Your task to perform on an android device: turn smart compose on in the gmail app Image 0: 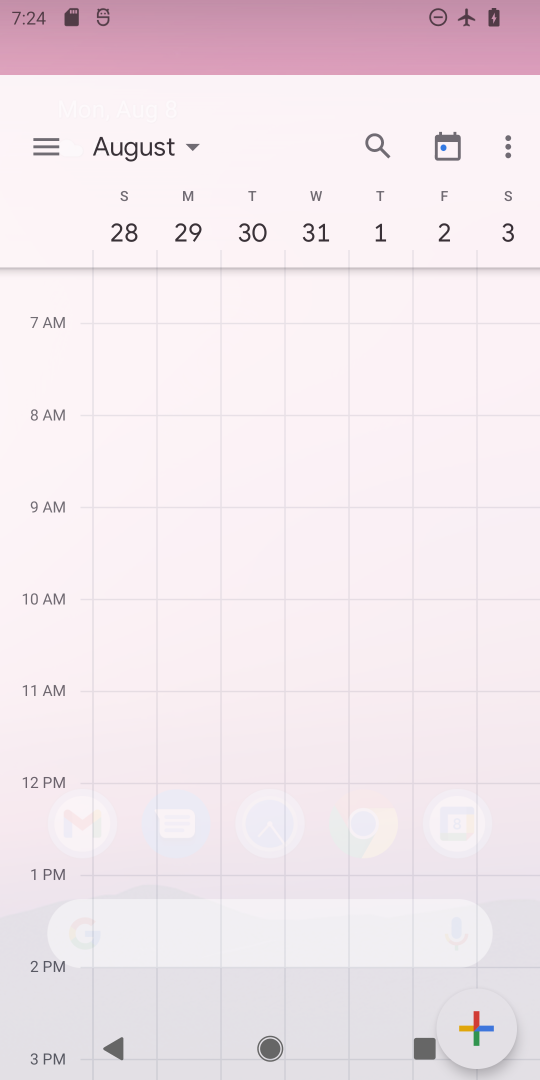
Step 0: drag from (242, 511) to (187, 123)
Your task to perform on an android device: turn smart compose on in the gmail app Image 1: 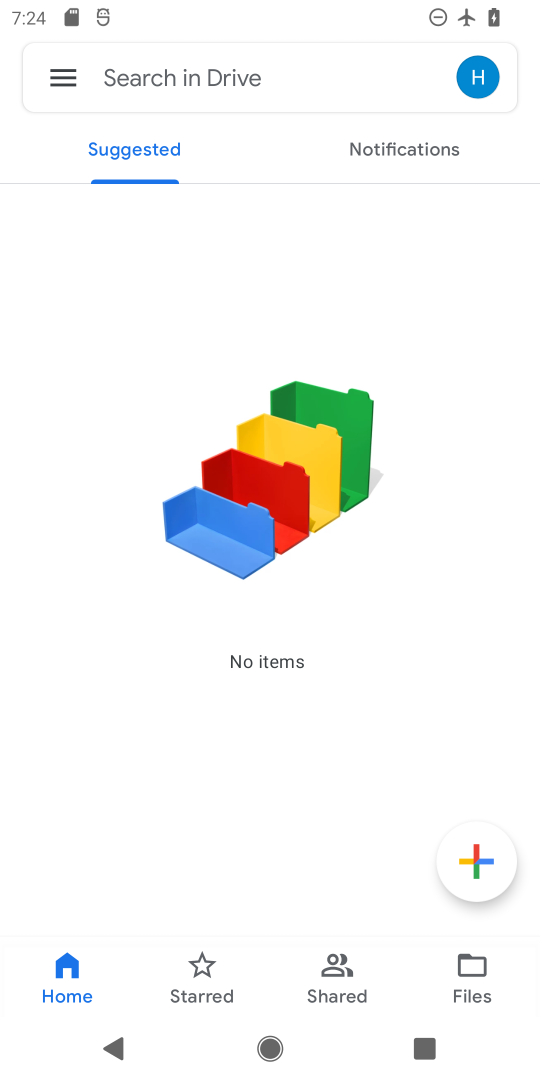
Step 1: press back button
Your task to perform on an android device: turn smart compose on in the gmail app Image 2: 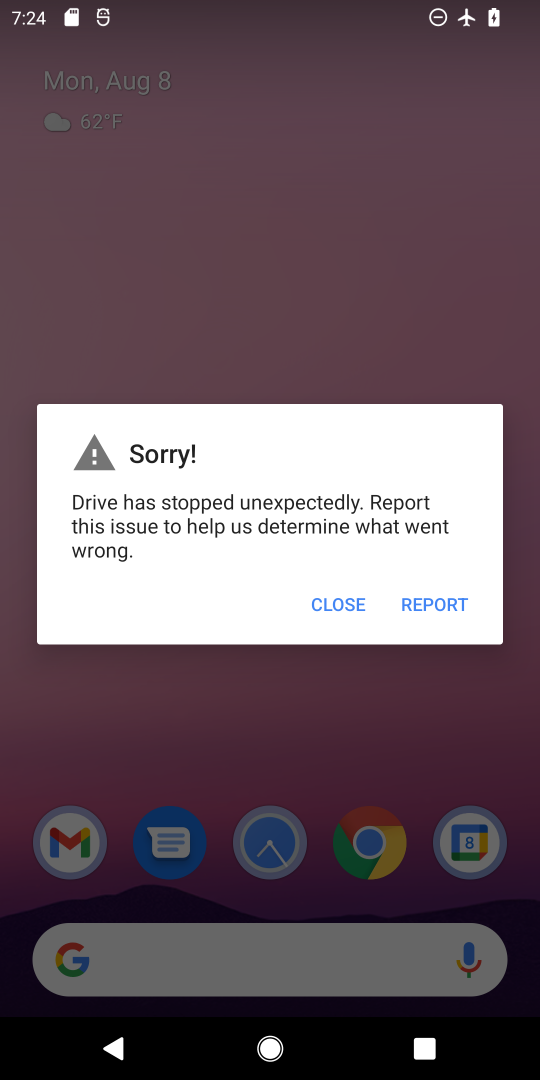
Step 2: click (347, 598)
Your task to perform on an android device: turn smart compose on in the gmail app Image 3: 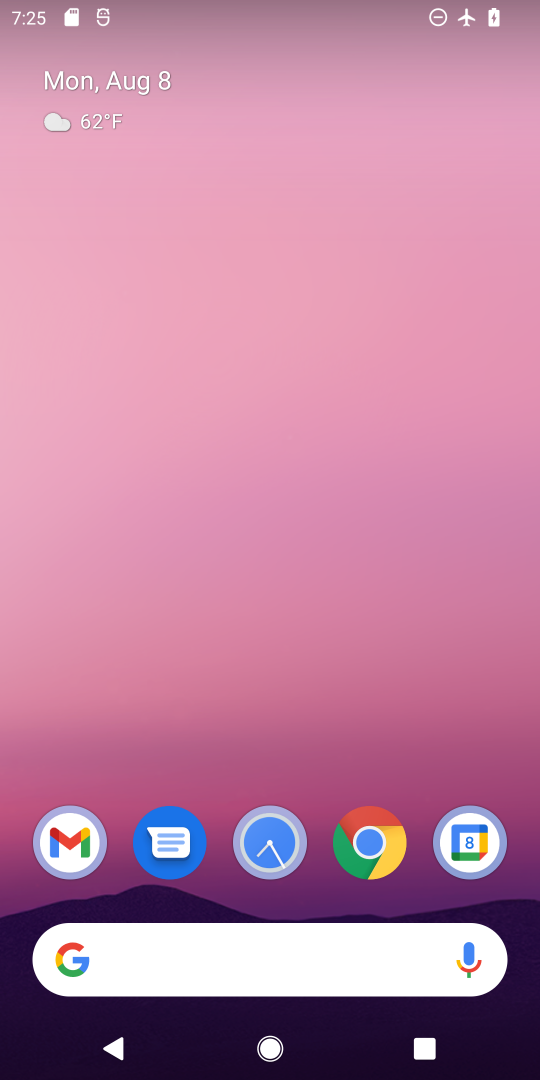
Step 3: drag from (316, 903) to (261, 213)
Your task to perform on an android device: turn smart compose on in the gmail app Image 4: 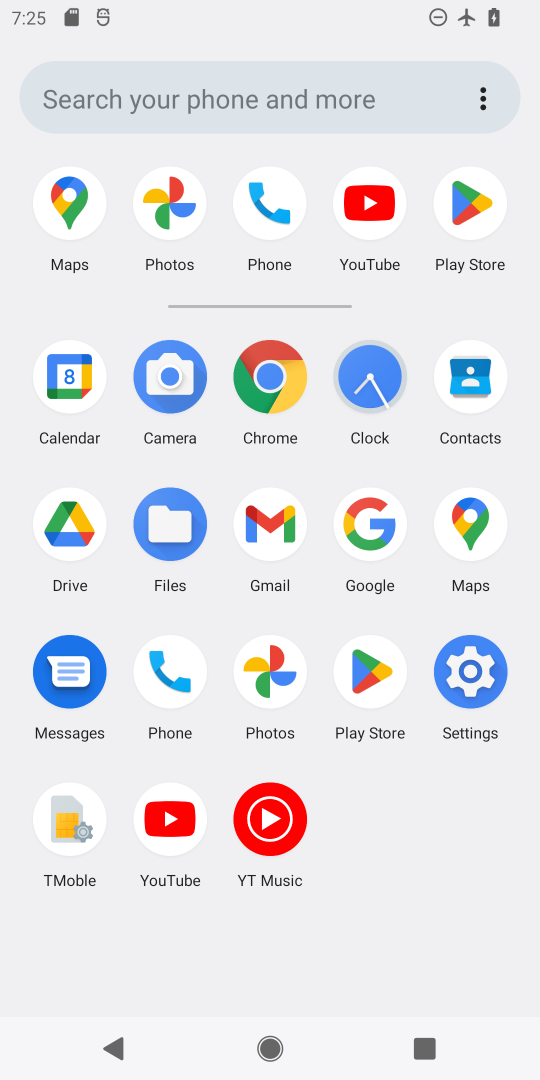
Step 4: click (260, 522)
Your task to perform on an android device: turn smart compose on in the gmail app Image 5: 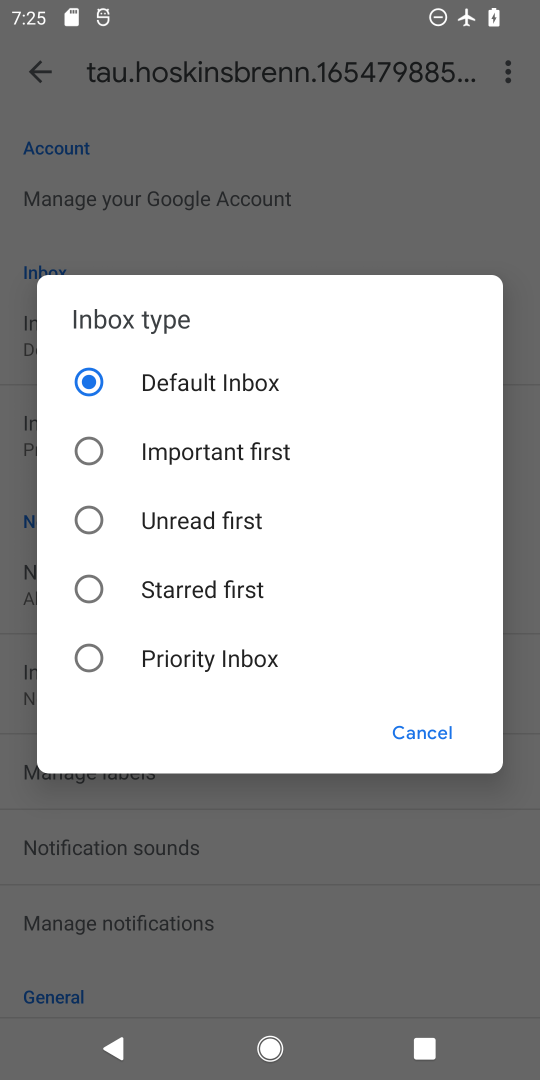
Step 5: click (440, 731)
Your task to perform on an android device: turn smart compose on in the gmail app Image 6: 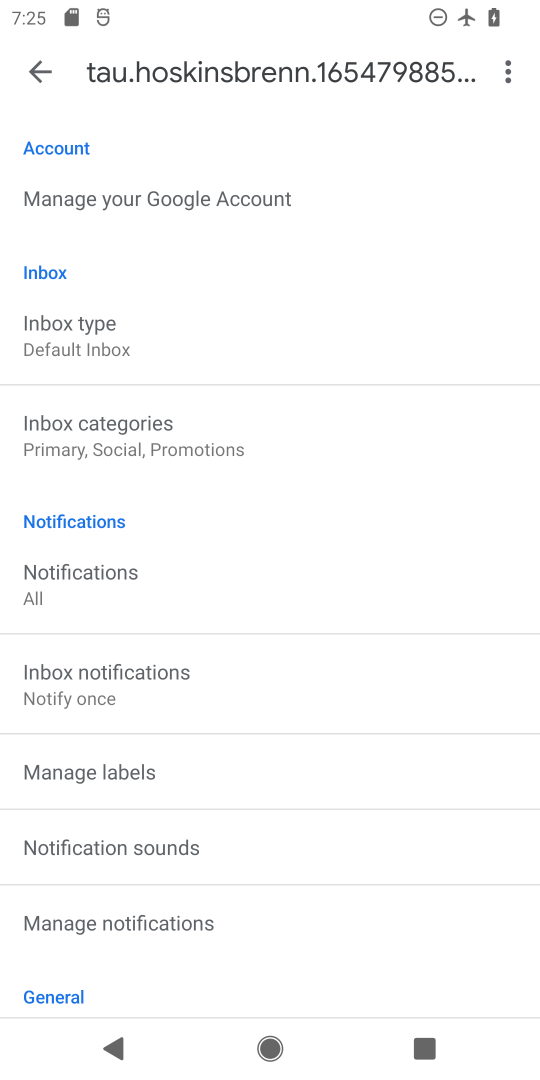
Step 6: task complete